Your task to perform on an android device: Go to sound settings Image 0: 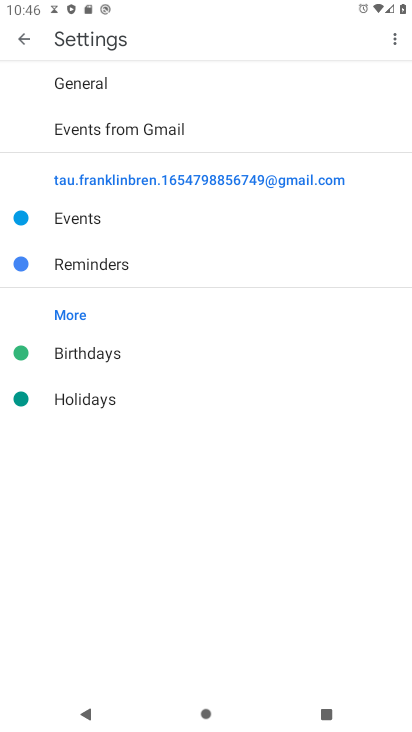
Step 0: press home button
Your task to perform on an android device: Go to sound settings Image 1: 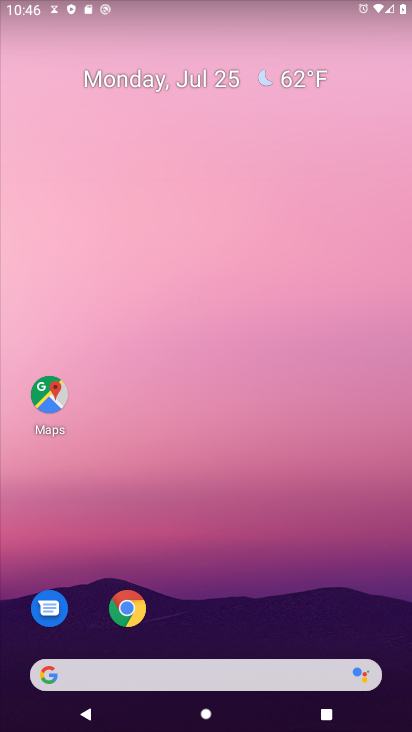
Step 1: drag from (201, 678) to (286, 138)
Your task to perform on an android device: Go to sound settings Image 2: 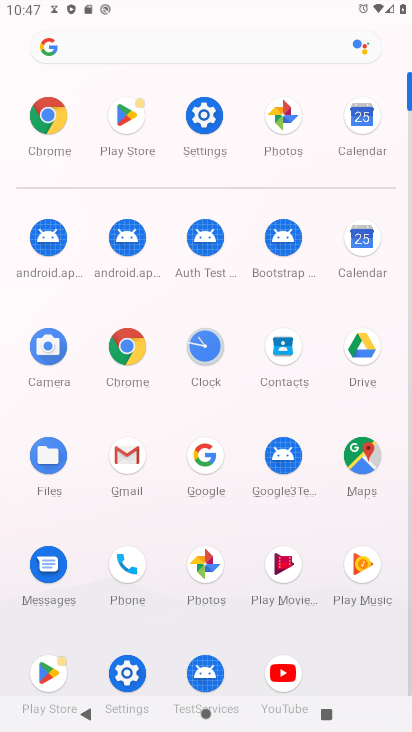
Step 2: click (203, 113)
Your task to perform on an android device: Go to sound settings Image 3: 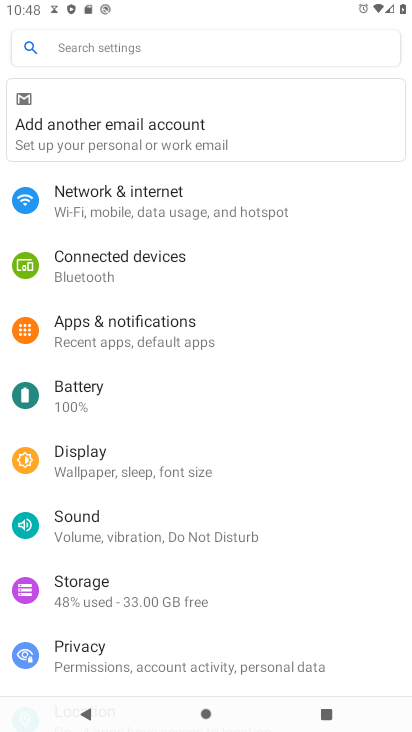
Step 3: click (87, 542)
Your task to perform on an android device: Go to sound settings Image 4: 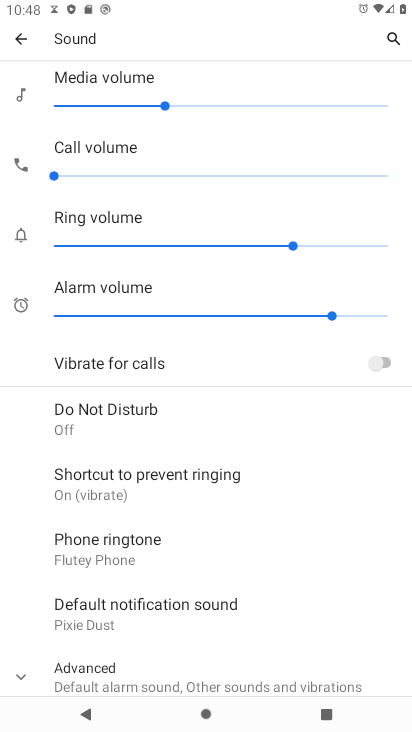
Step 4: task complete